Your task to perform on an android device: Go to Google Image 0: 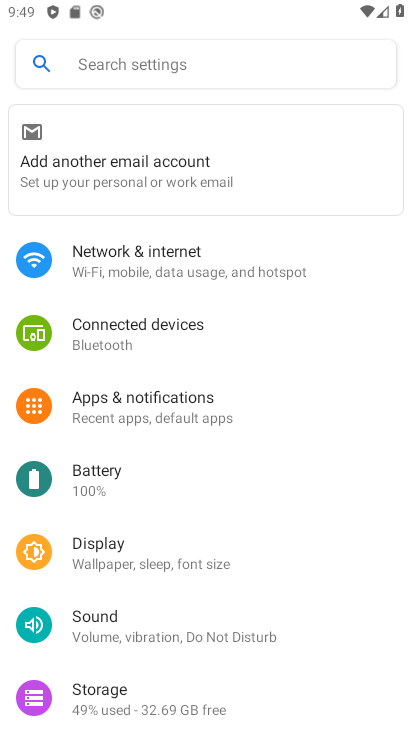
Step 0: press home button
Your task to perform on an android device: Go to Google Image 1: 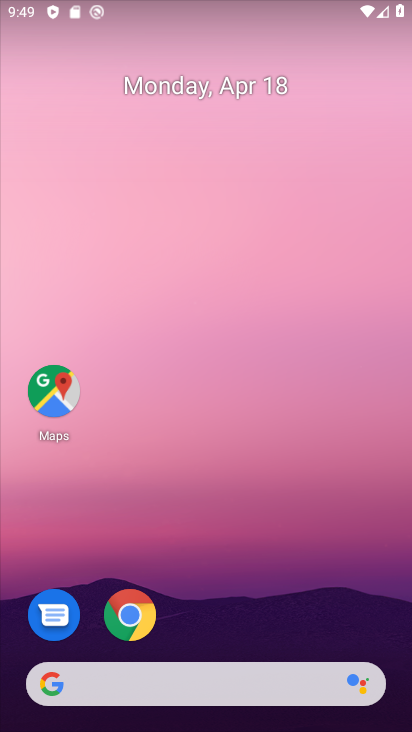
Step 1: drag from (322, 548) to (311, 32)
Your task to perform on an android device: Go to Google Image 2: 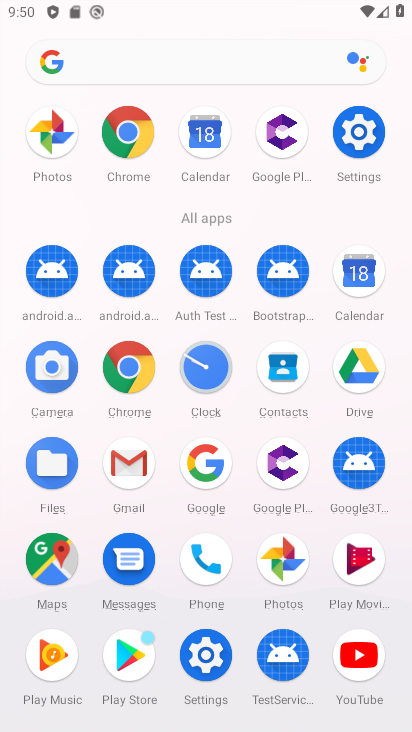
Step 2: drag from (404, 558) to (403, 498)
Your task to perform on an android device: Go to Google Image 3: 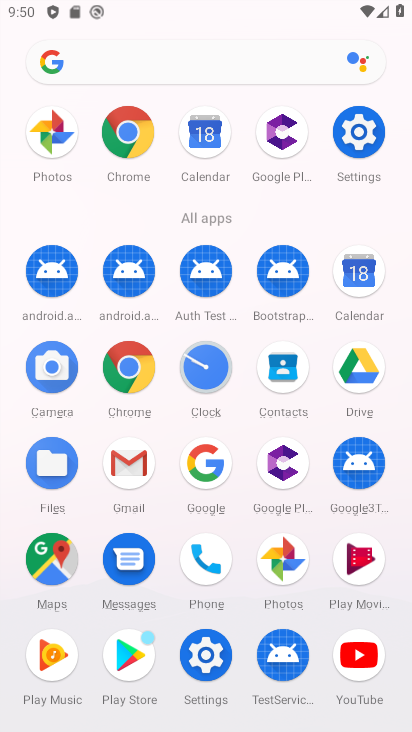
Step 3: click (204, 461)
Your task to perform on an android device: Go to Google Image 4: 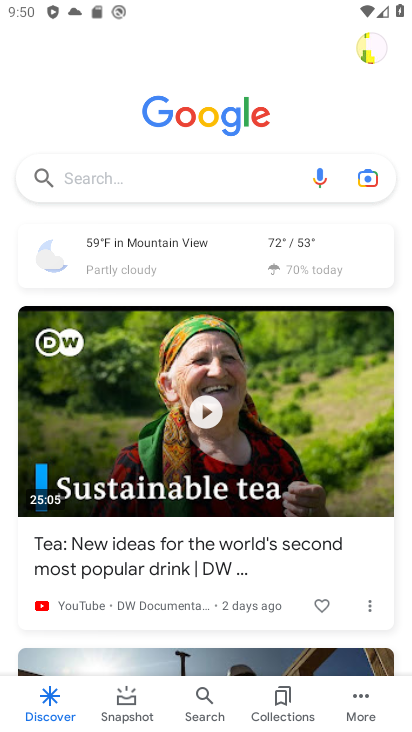
Step 4: task complete